Your task to perform on an android device: set default search engine in the chrome app Image 0: 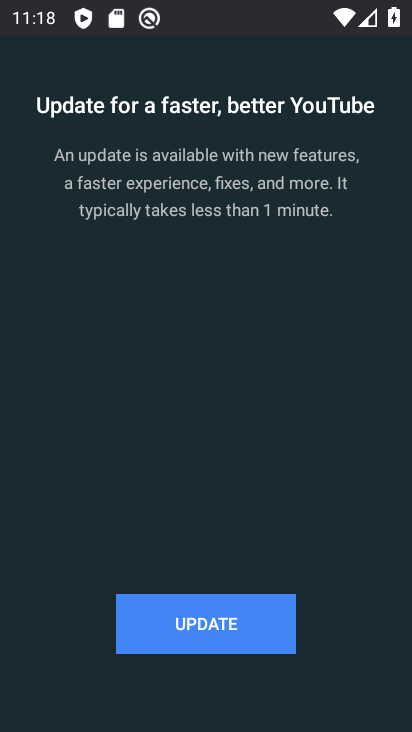
Step 0: press home button
Your task to perform on an android device: set default search engine in the chrome app Image 1: 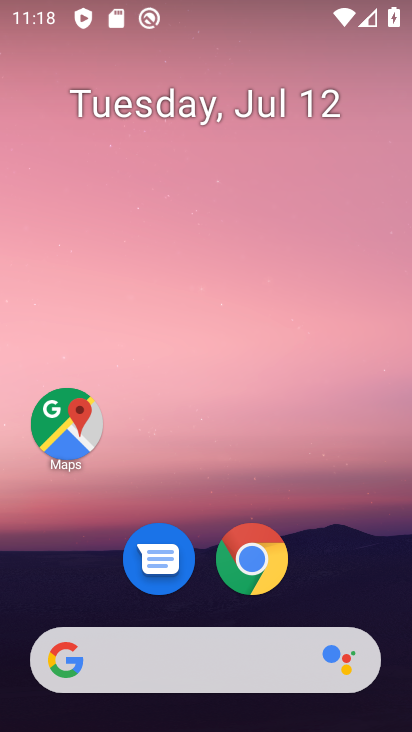
Step 1: drag from (234, 637) to (319, 150)
Your task to perform on an android device: set default search engine in the chrome app Image 2: 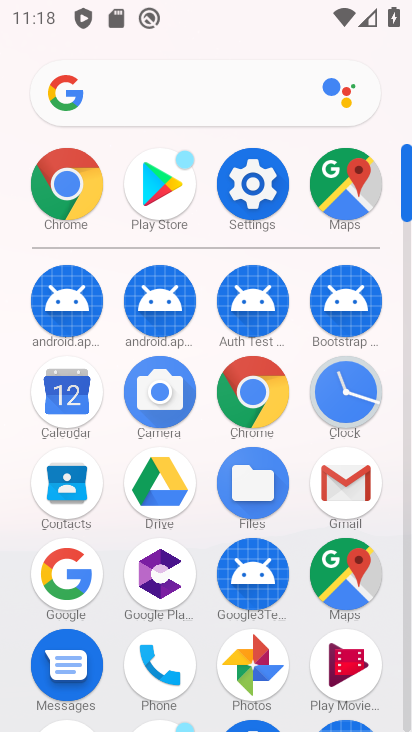
Step 2: click (271, 387)
Your task to perform on an android device: set default search engine in the chrome app Image 3: 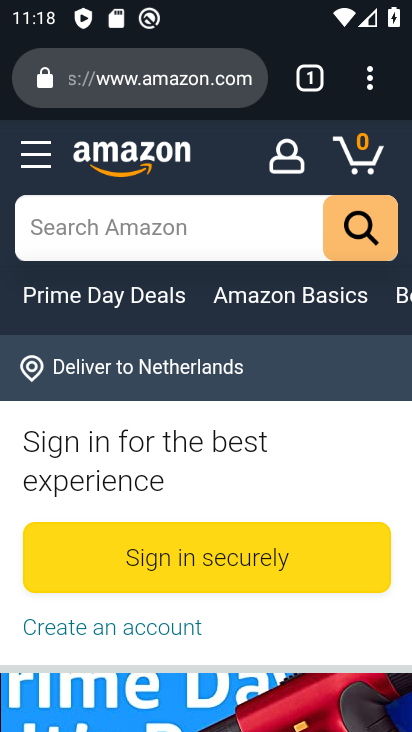
Step 3: click (382, 84)
Your task to perform on an android device: set default search engine in the chrome app Image 4: 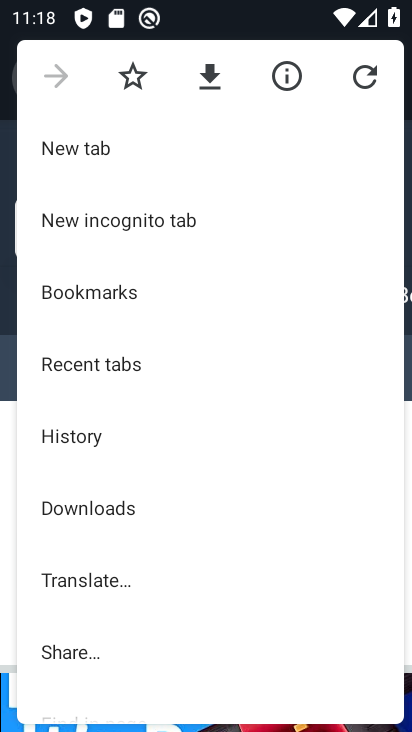
Step 4: click (185, 407)
Your task to perform on an android device: set default search engine in the chrome app Image 5: 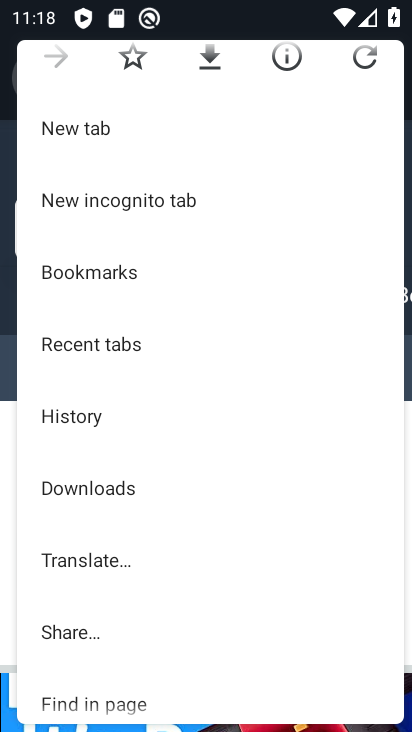
Step 5: drag from (142, 661) to (219, 303)
Your task to perform on an android device: set default search engine in the chrome app Image 6: 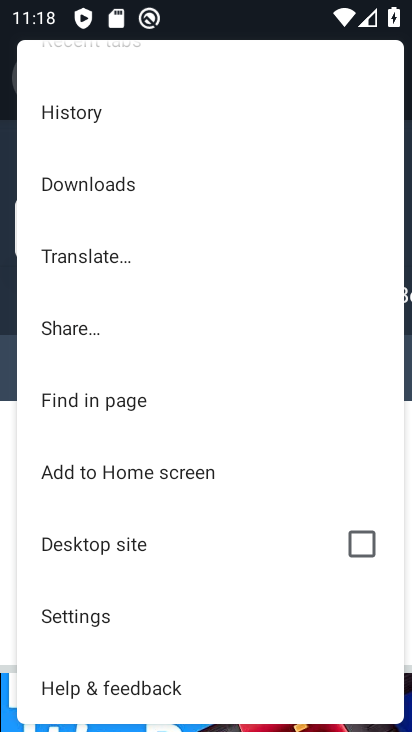
Step 6: click (104, 614)
Your task to perform on an android device: set default search engine in the chrome app Image 7: 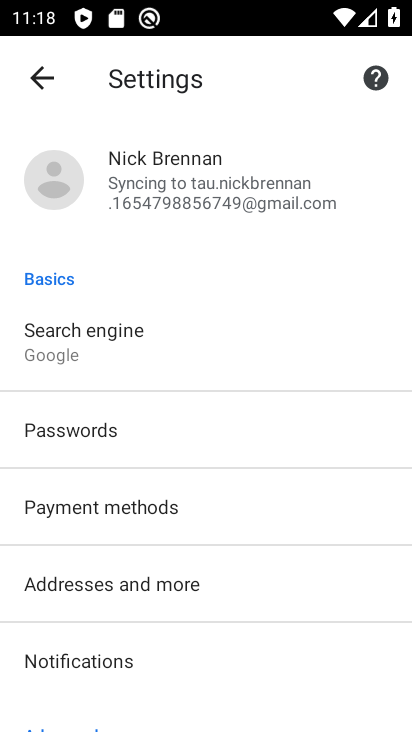
Step 7: click (145, 356)
Your task to perform on an android device: set default search engine in the chrome app Image 8: 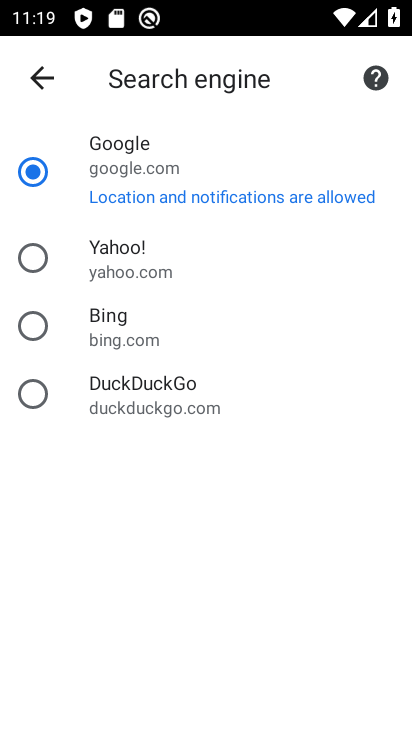
Step 8: task complete